Your task to perform on an android device: turn off priority inbox in the gmail app Image 0: 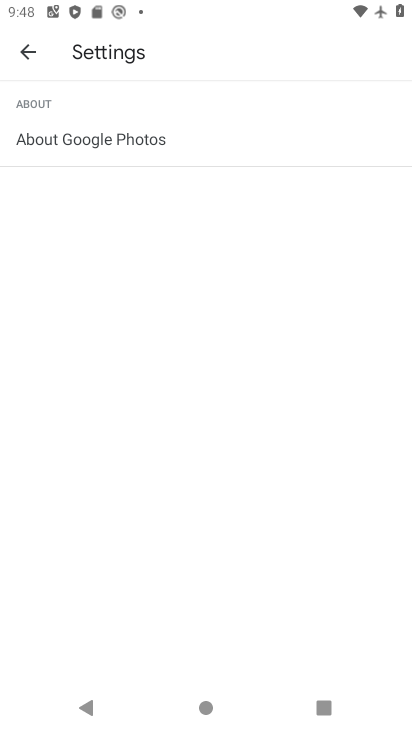
Step 0: press home button
Your task to perform on an android device: turn off priority inbox in the gmail app Image 1: 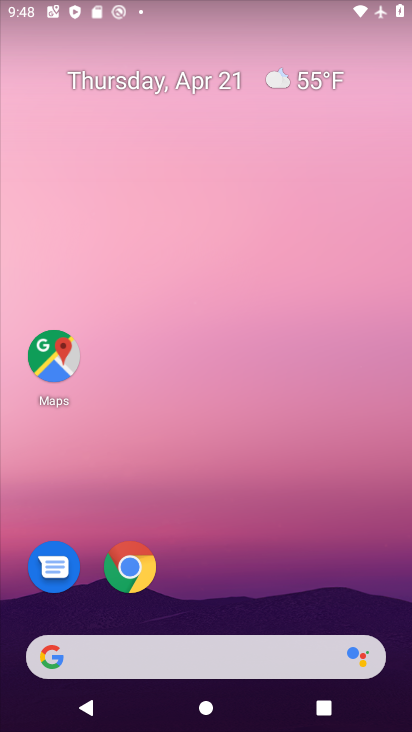
Step 1: drag from (367, 600) to (291, 71)
Your task to perform on an android device: turn off priority inbox in the gmail app Image 2: 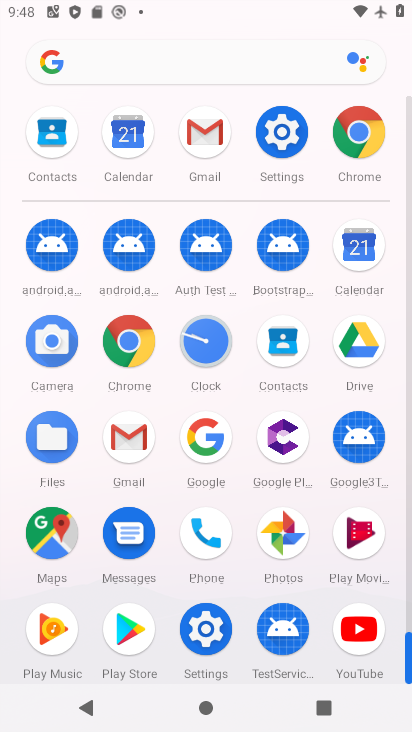
Step 2: click (129, 436)
Your task to perform on an android device: turn off priority inbox in the gmail app Image 3: 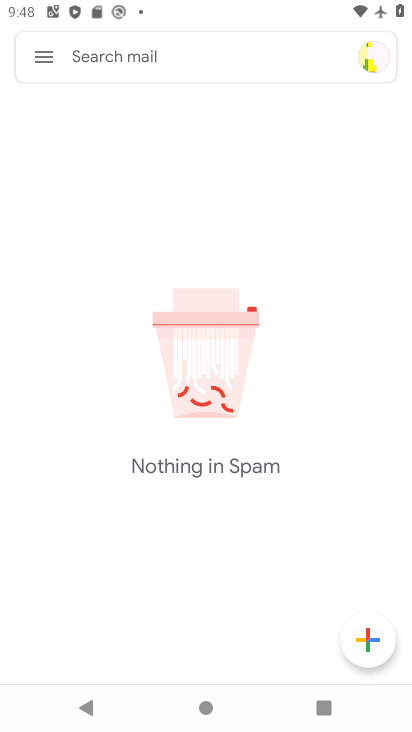
Step 3: click (40, 60)
Your task to perform on an android device: turn off priority inbox in the gmail app Image 4: 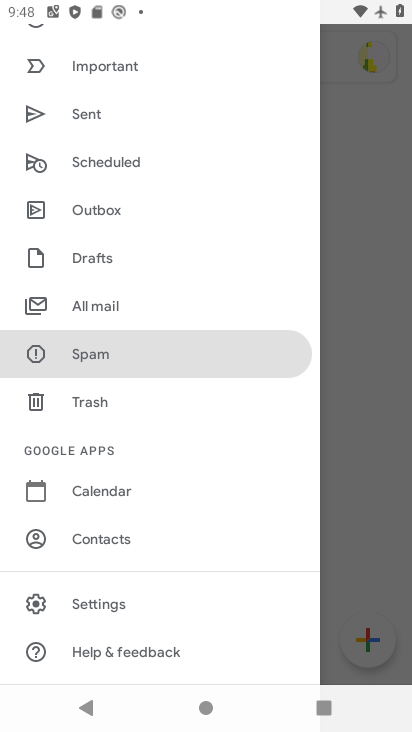
Step 4: click (103, 609)
Your task to perform on an android device: turn off priority inbox in the gmail app Image 5: 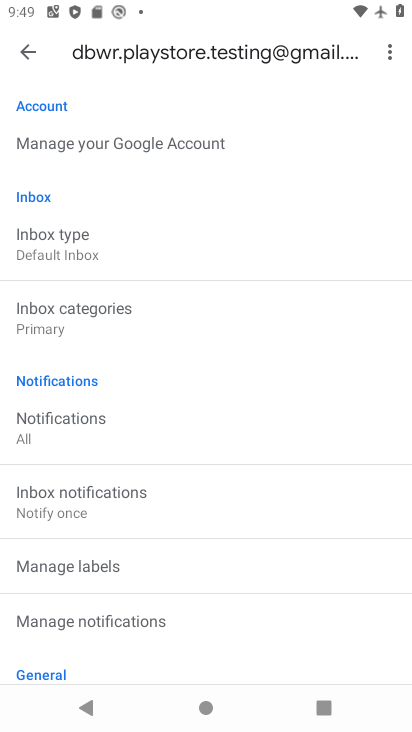
Step 5: click (49, 240)
Your task to perform on an android device: turn off priority inbox in the gmail app Image 6: 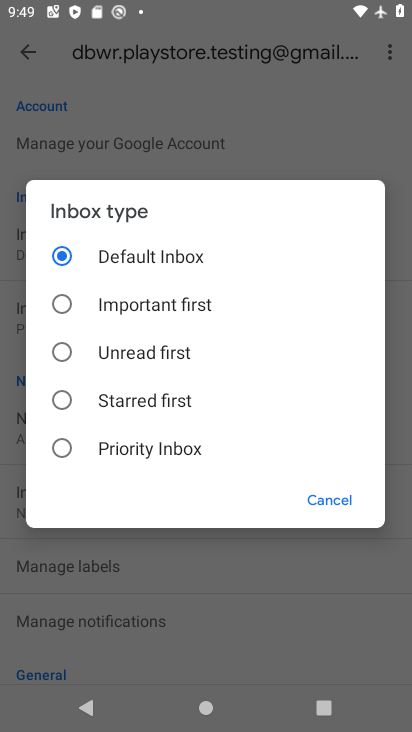
Step 6: task complete